Your task to perform on an android device: Go to location settings Image 0: 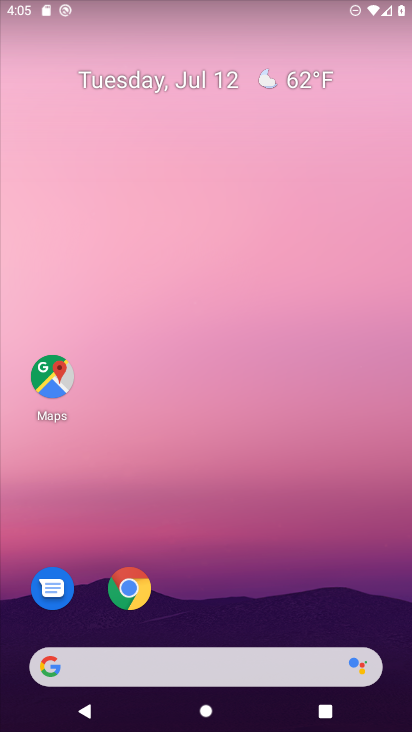
Step 0: click (357, 306)
Your task to perform on an android device: Go to location settings Image 1: 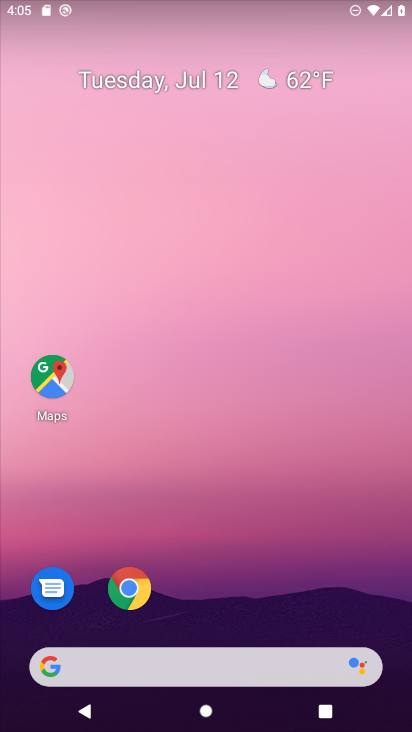
Step 1: drag from (261, 625) to (274, 124)
Your task to perform on an android device: Go to location settings Image 2: 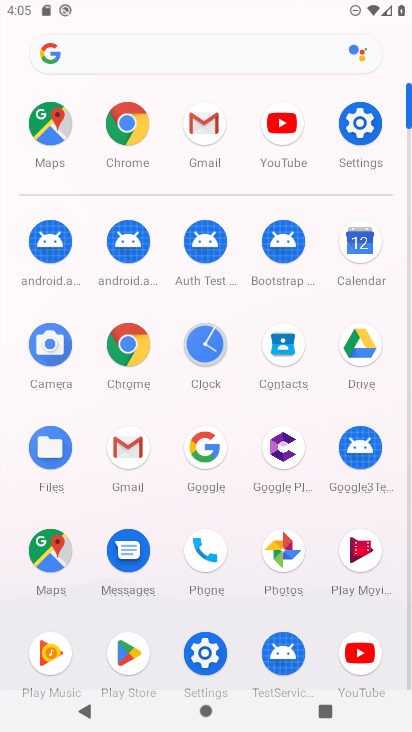
Step 2: click (200, 653)
Your task to perform on an android device: Go to location settings Image 3: 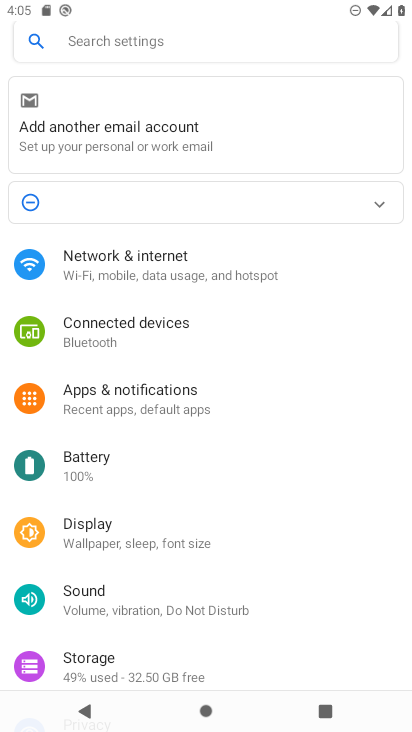
Step 3: drag from (151, 622) to (180, 421)
Your task to perform on an android device: Go to location settings Image 4: 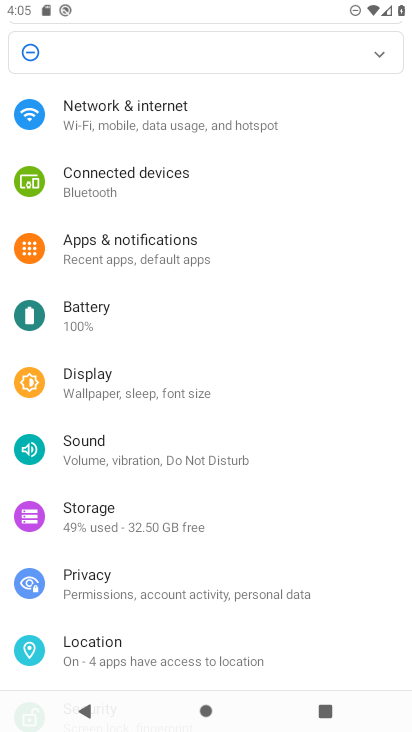
Step 4: click (106, 647)
Your task to perform on an android device: Go to location settings Image 5: 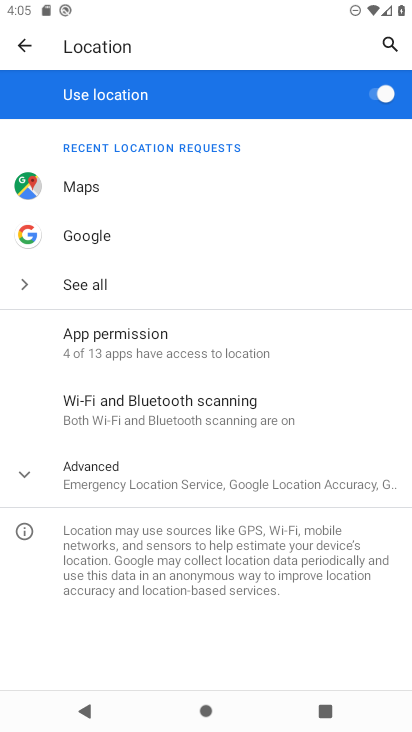
Step 5: task complete